Your task to perform on an android device: Open Google Maps Image 0: 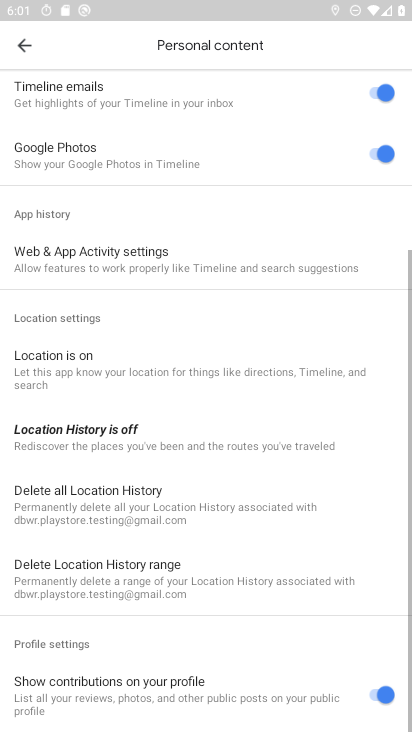
Step 0: press home button
Your task to perform on an android device: Open Google Maps Image 1: 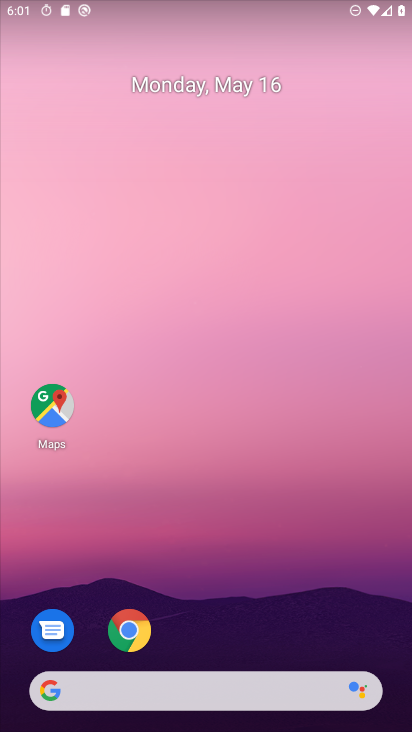
Step 1: click (53, 421)
Your task to perform on an android device: Open Google Maps Image 2: 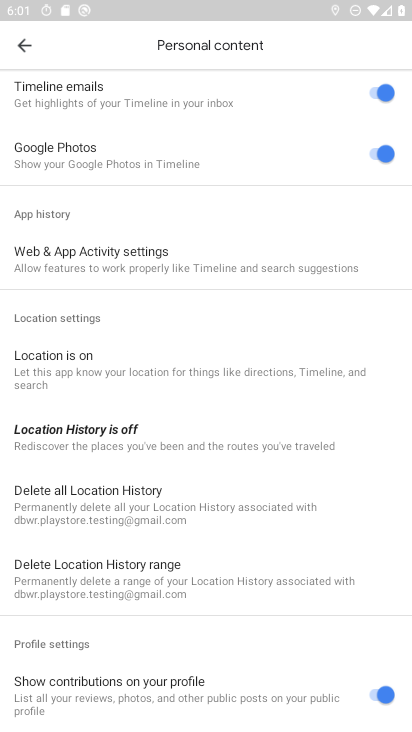
Step 2: task complete